Your task to perform on an android device: see creations saved in the google photos Image 0: 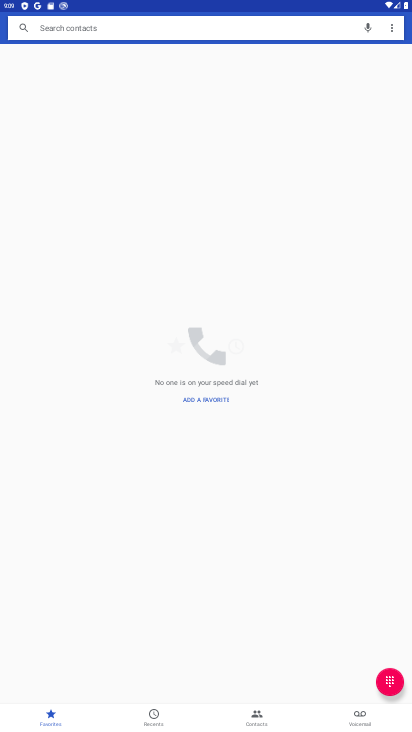
Step 0: press home button
Your task to perform on an android device: see creations saved in the google photos Image 1: 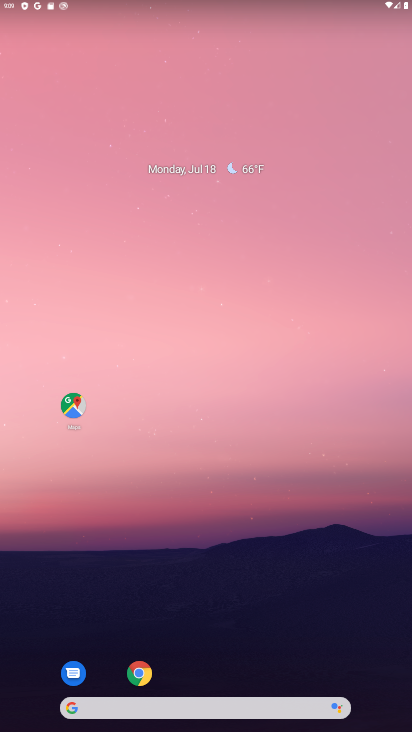
Step 1: drag from (231, 298) to (272, 133)
Your task to perform on an android device: see creations saved in the google photos Image 2: 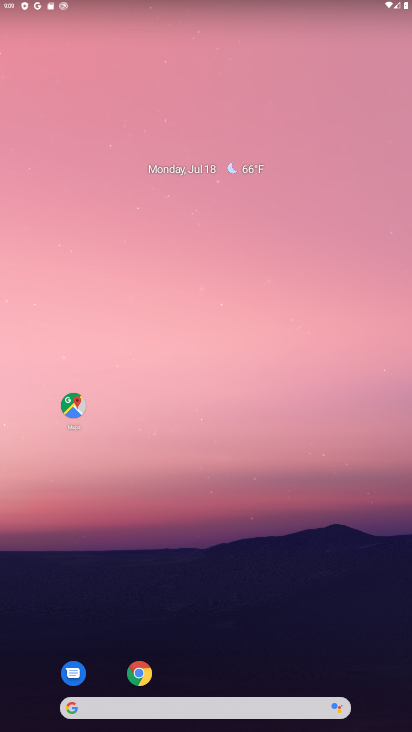
Step 2: drag from (234, 667) to (244, 116)
Your task to perform on an android device: see creations saved in the google photos Image 3: 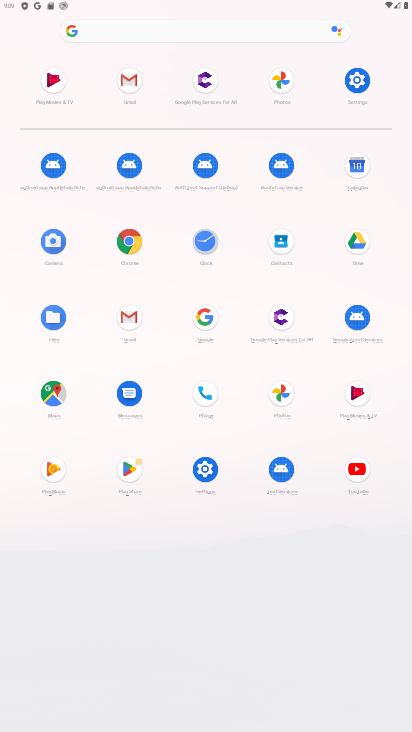
Step 3: click (280, 80)
Your task to perform on an android device: see creations saved in the google photos Image 4: 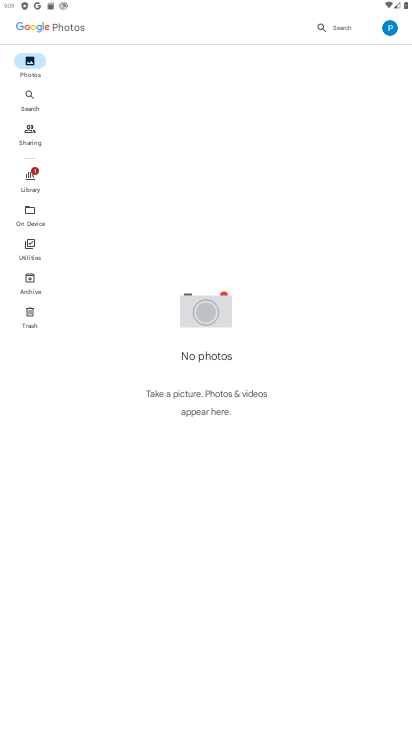
Step 4: click (321, 29)
Your task to perform on an android device: see creations saved in the google photos Image 5: 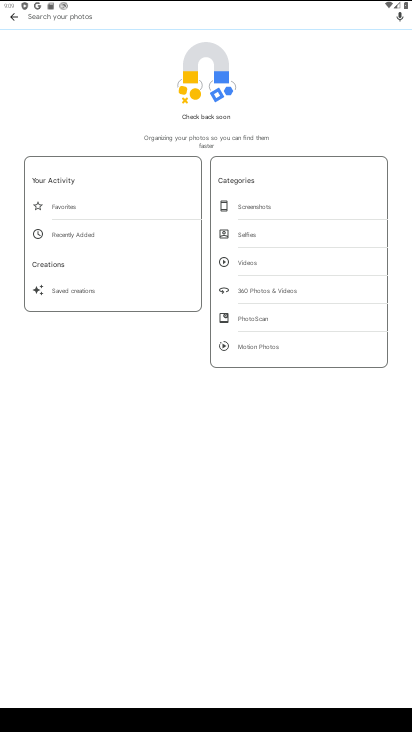
Step 5: click (66, 289)
Your task to perform on an android device: see creations saved in the google photos Image 6: 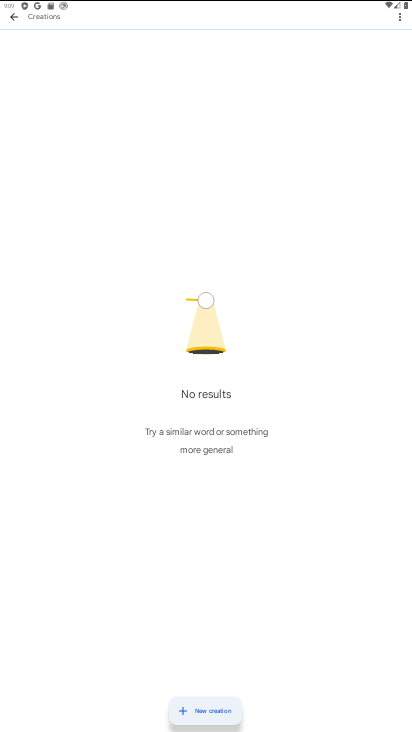
Step 6: task complete